Your task to perform on an android device: Show me popular videos on Youtube Image 0: 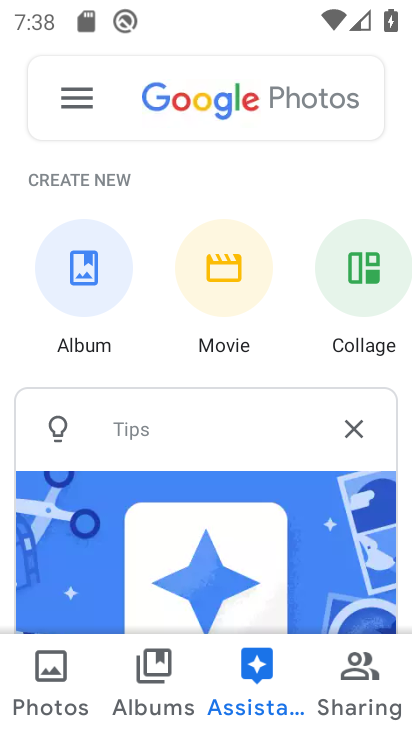
Step 0: press home button
Your task to perform on an android device: Show me popular videos on Youtube Image 1: 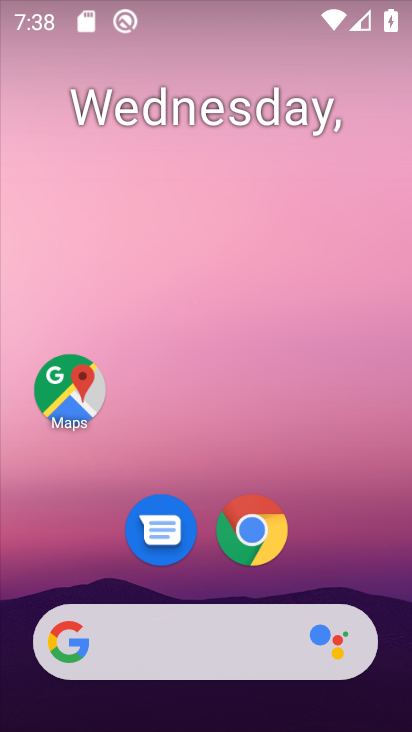
Step 1: drag from (398, 668) to (340, 35)
Your task to perform on an android device: Show me popular videos on Youtube Image 2: 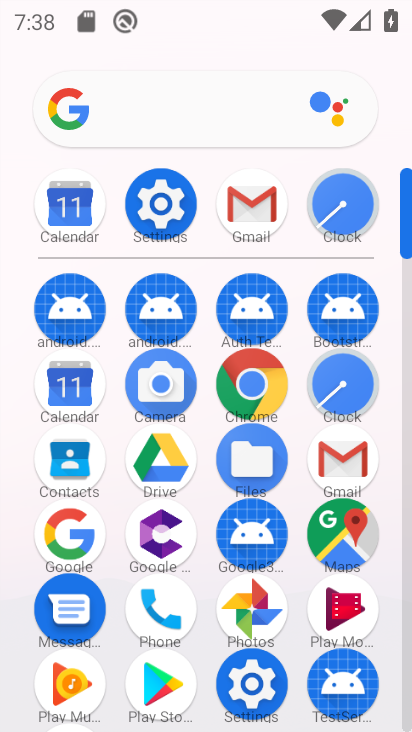
Step 2: drag from (296, 635) to (274, 185)
Your task to perform on an android device: Show me popular videos on Youtube Image 3: 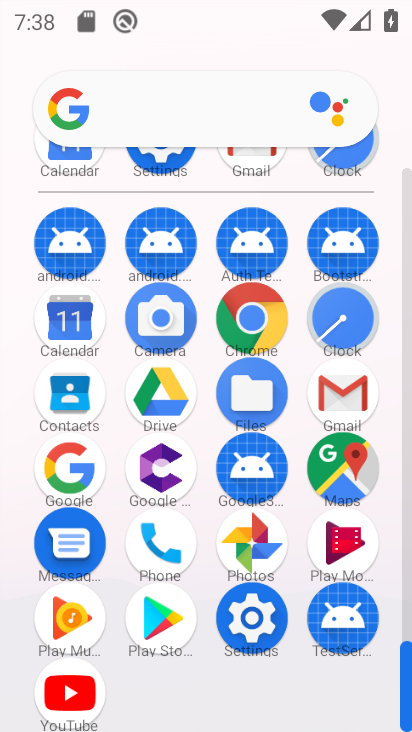
Step 3: click (73, 690)
Your task to perform on an android device: Show me popular videos on Youtube Image 4: 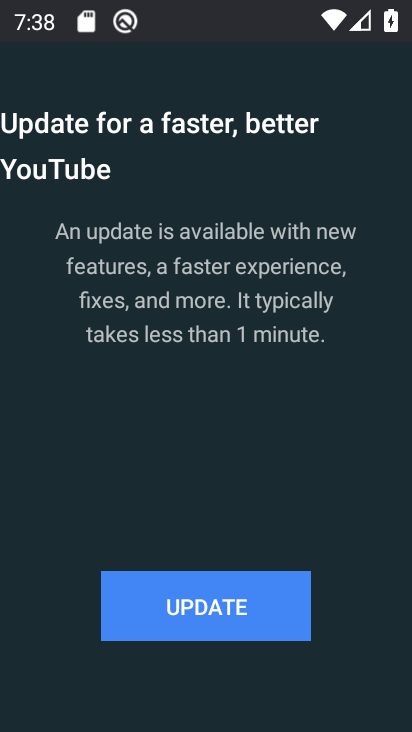
Step 4: click (187, 623)
Your task to perform on an android device: Show me popular videos on Youtube Image 5: 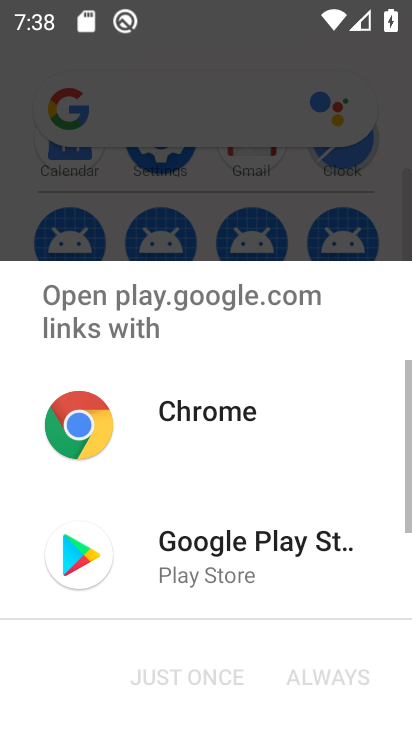
Step 5: click (130, 576)
Your task to perform on an android device: Show me popular videos on Youtube Image 6: 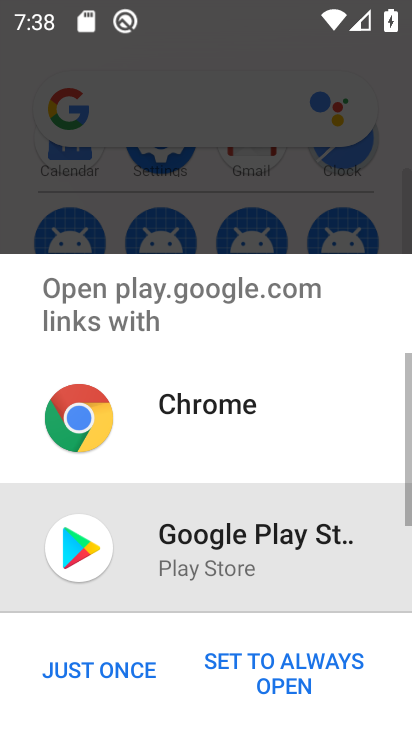
Step 6: click (82, 665)
Your task to perform on an android device: Show me popular videos on Youtube Image 7: 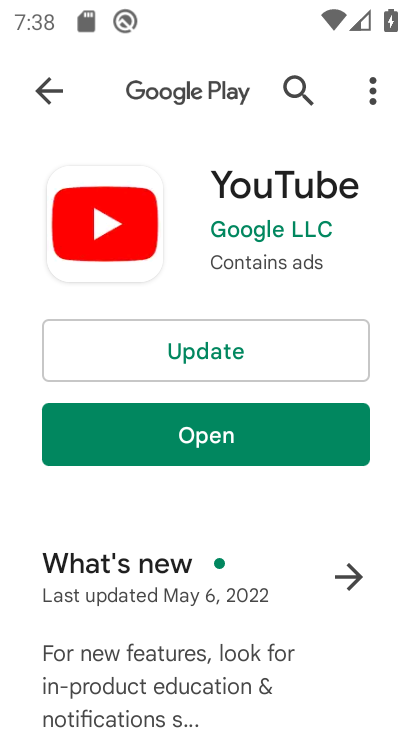
Step 7: click (214, 347)
Your task to perform on an android device: Show me popular videos on Youtube Image 8: 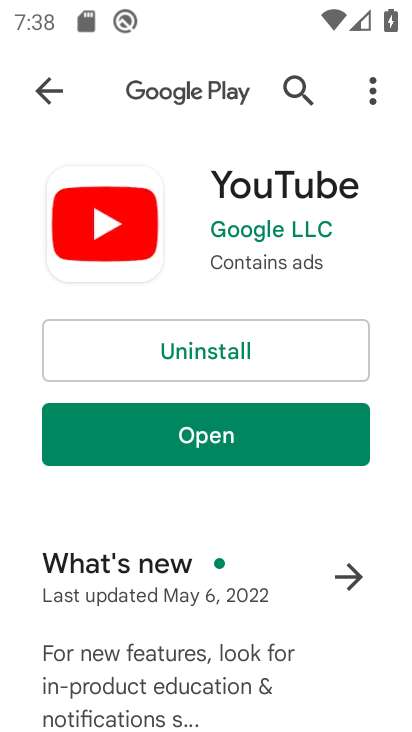
Step 8: click (255, 428)
Your task to perform on an android device: Show me popular videos on Youtube Image 9: 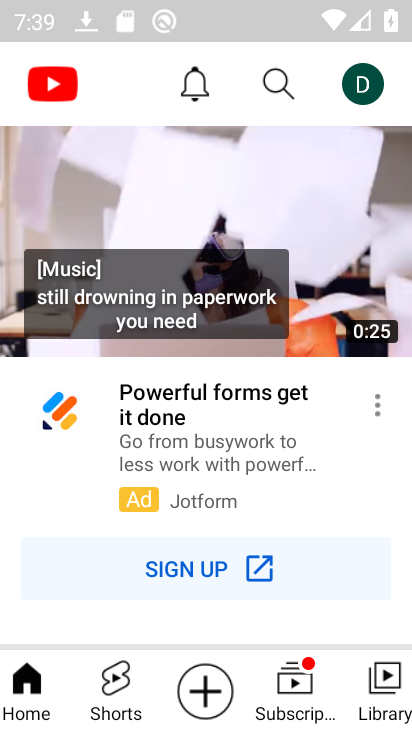
Step 9: task complete